Your task to perform on an android device: choose inbox layout in the gmail app Image 0: 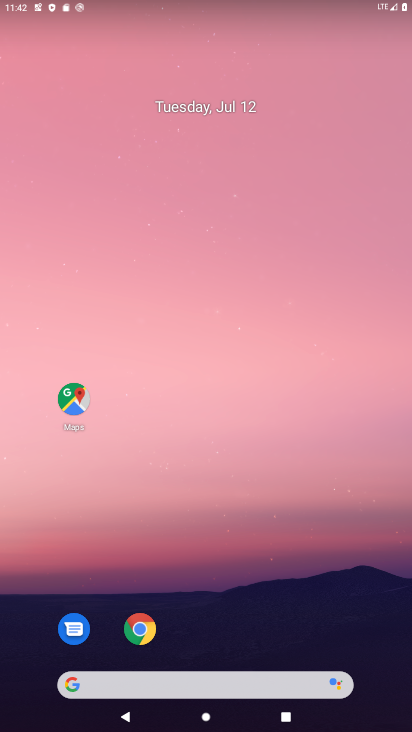
Step 0: press home button
Your task to perform on an android device: choose inbox layout in the gmail app Image 1: 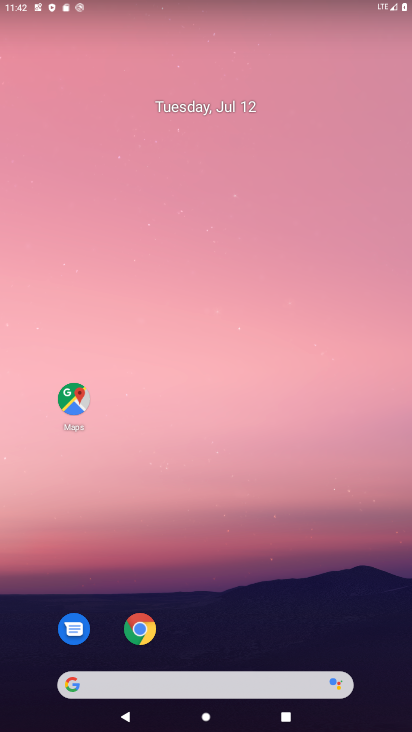
Step 1: drag from (220, 650) to (230, 91)
Your task to perform on an android device: choose inbox layout in the gmail app Image 2: 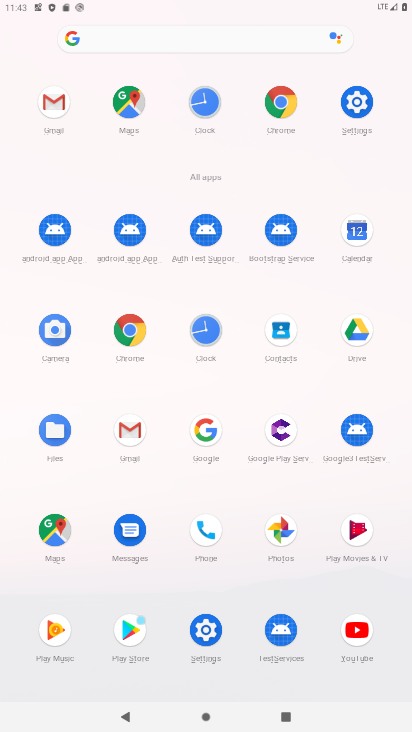
Step 2: click (122, 428)
Your task to perform on an android device: choose inbox layout in the gmail app Image 3: 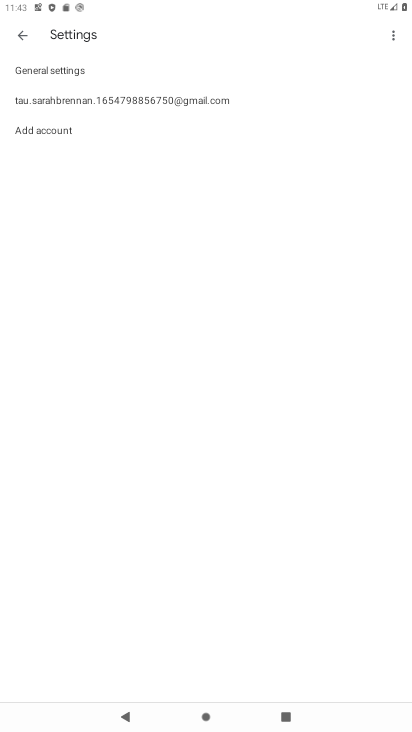
Step 3: click (207, 94)
Your task to perform on an android device: choose inbox layout in the gmail app Image 4: 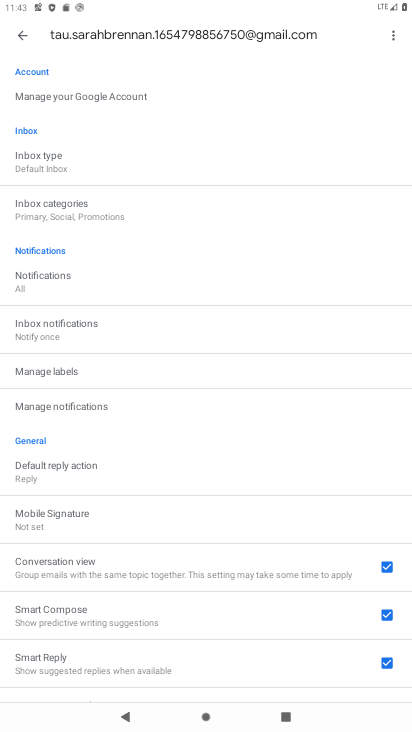
Step 4: click (86, 164)
Your task to perform on an android device: choose inbox layout in the gmail app Image 5: 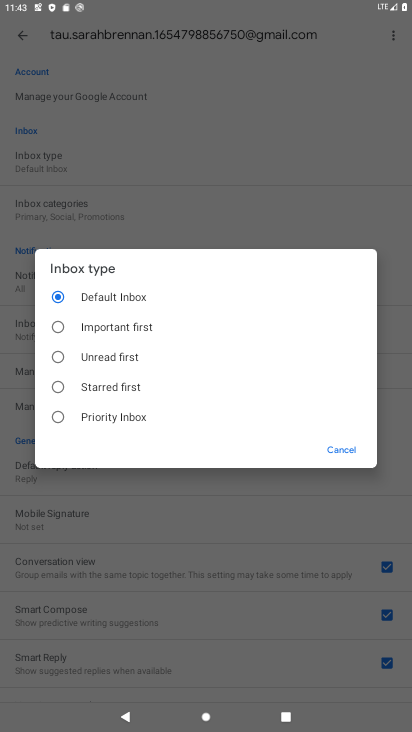
Step 5: click (60, 322)
Your task to perform on an android device: choose inbox layout in the gmail app Image 6: 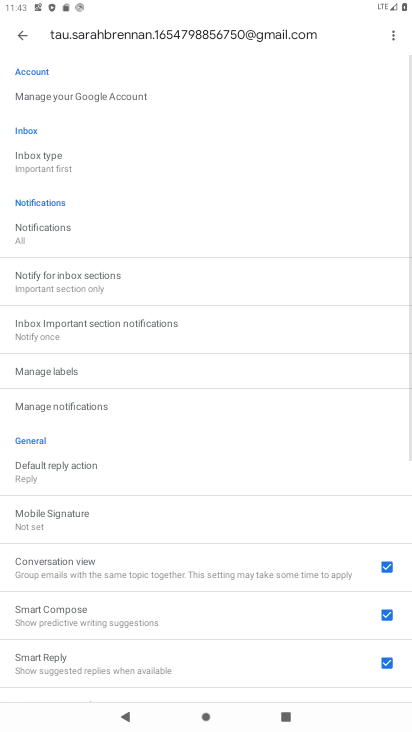
Step 6: task complete